Your task to perform on an android device: turn off improve location accuracy Image 0: 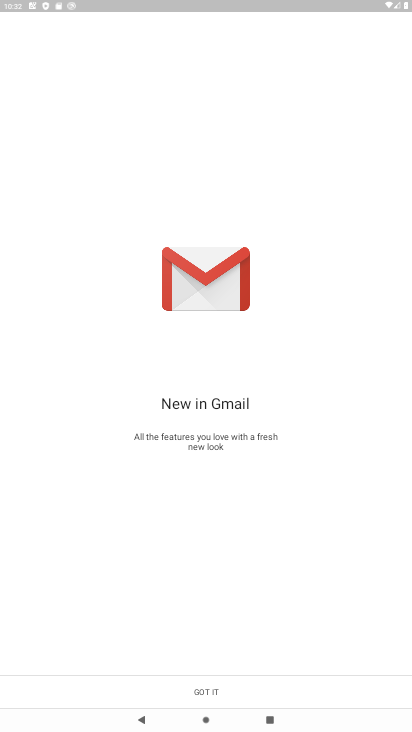
Step 0: press home button
Your task to perform on an android device: turn off improve location accuracy Image 1: 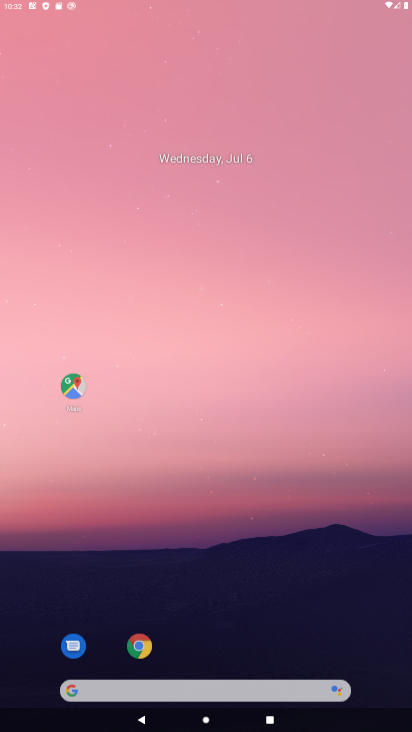
Step 1: drag from (357, 669) to (276, 56)
Your task to perform on an android device: turn off improve location accuracy Image 2: 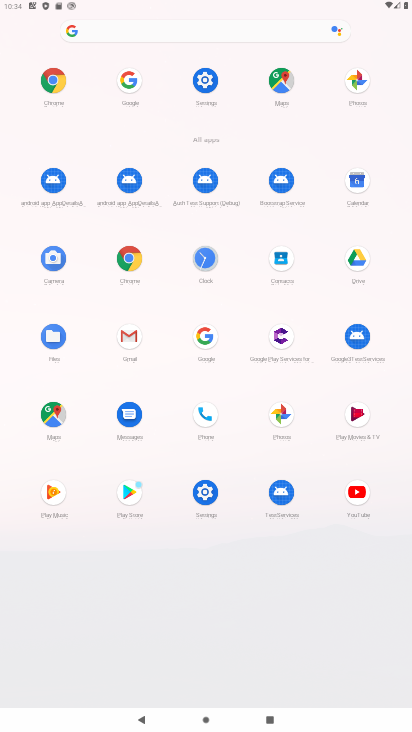
Step 2: click (206, 79)
Your task to perform on an android device: turn off improve location accuracy Image 3: 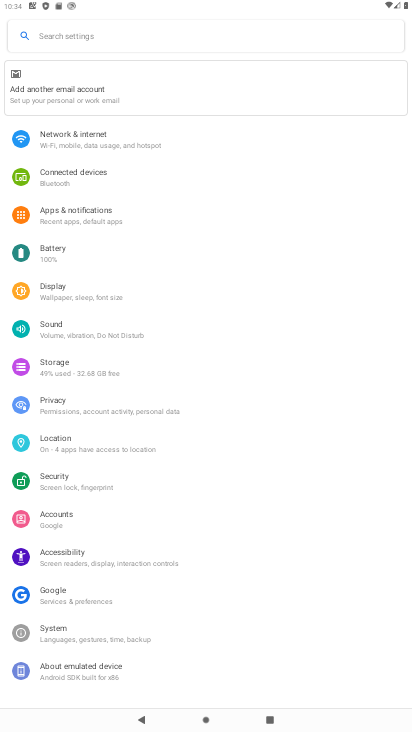
Step 3: click (69, 441)
Your task to perform on an android device: turn off improve location accuracy Image 4: 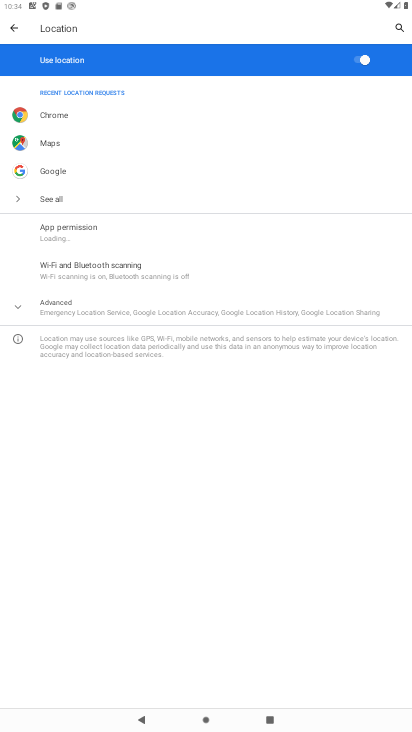
Step 4: click (80, 307)
Your task to perform on an android device: turn off improve location accuracy Image 5: 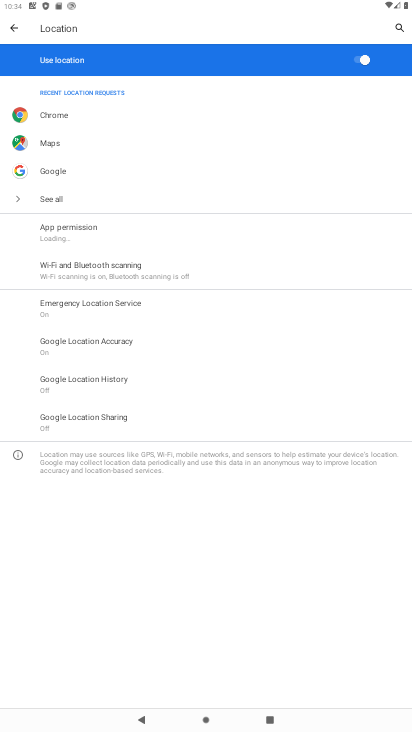
Step 5: click (83, 344)
Your task to perform on an android device: turn off improve location accuracy Image 6: 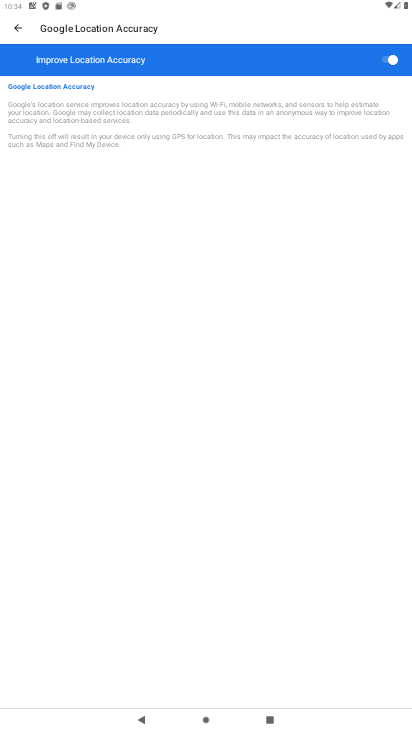
Step 6: click (364, 69)
Your task to perform on an android device: turn off improve location accuracy Image 7: 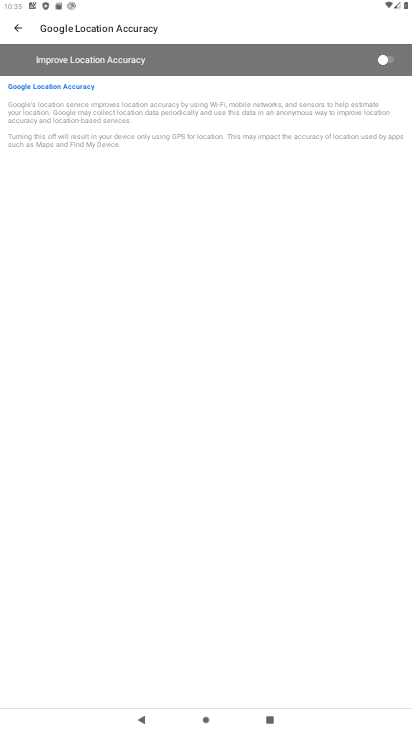
Step 7: task complete